Your task to perform on an android device: Is it going to rain this weekend? Image 0: 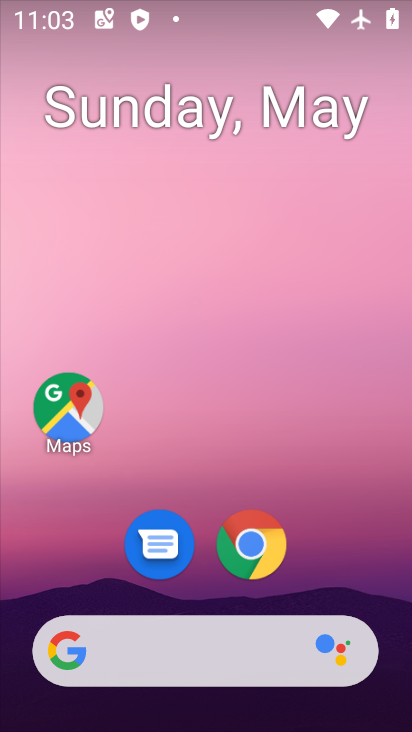
Step 0: click (257, 538)
Your task to perform on an android device: Is it going to rain this weekend? Image 1: 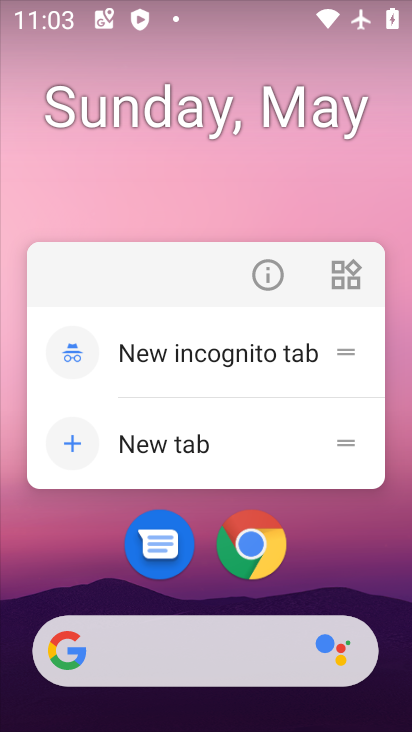
Step 1: click (240, 559)
Your task to perform on an android device: Is it going to rain this weekend? Image 2: 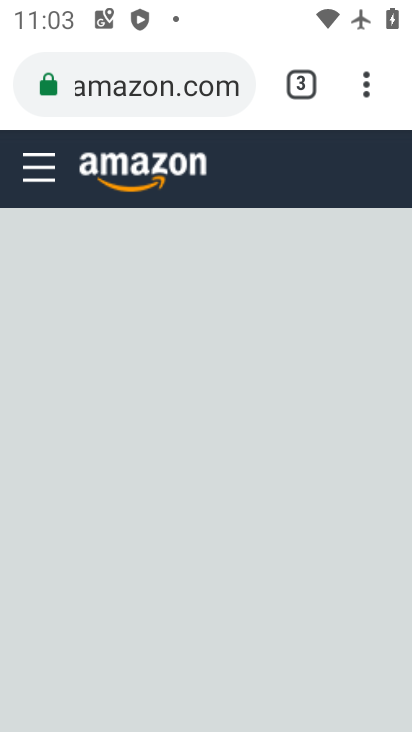
Step 2: click (355, 82)
Your task to perform on an android device: Is it going to rain this weekend? Image 3: 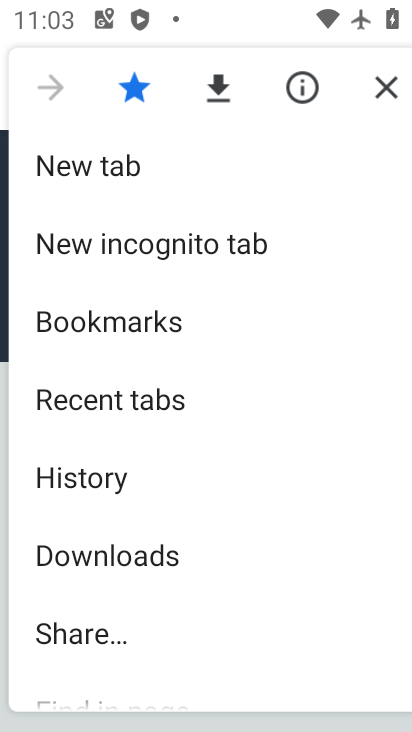
Step 3: click (139, 161)
Your task to perform on an android device: Is it going to rain this weekend? Image 4: 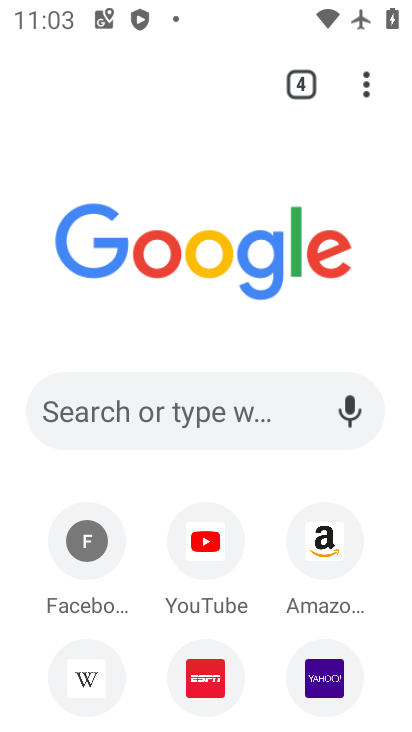
Step 4: click (166, 388)
Your task to perform on an android device: Is it going to rain this weekend? Image 5: 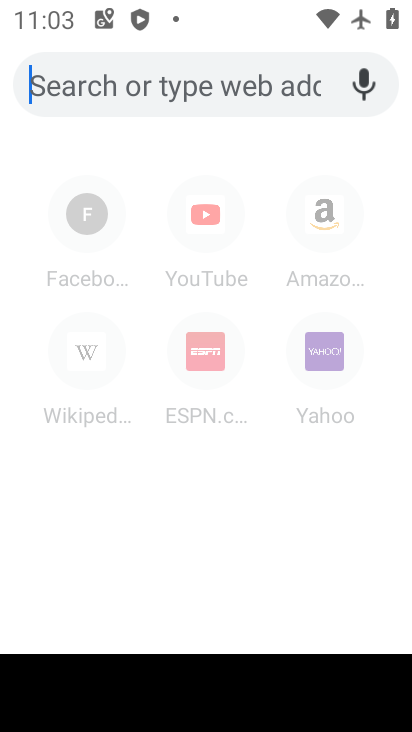
Step 5: type "Is it going to rain this weekend?"
Your task to perform on an android device: Is it going to rain this weekend? Image 6: 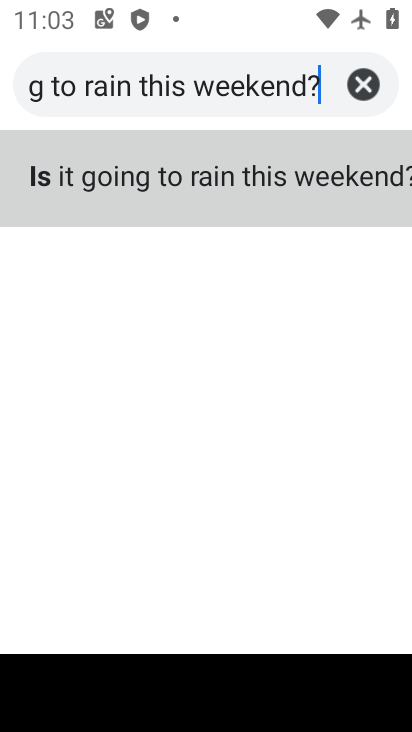
Step 6: click (167, 166)
Your task to perform on an android device: Is it going to rain this weekend? Image 7: 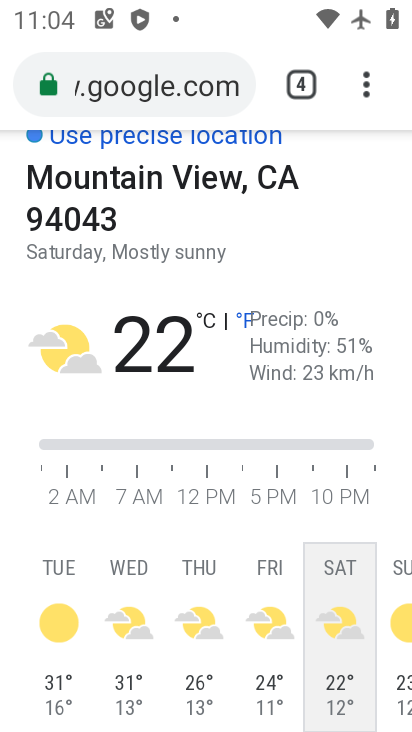
Step 7: task complete